Your task to perform on an android device: Go to battery settings Image 0: 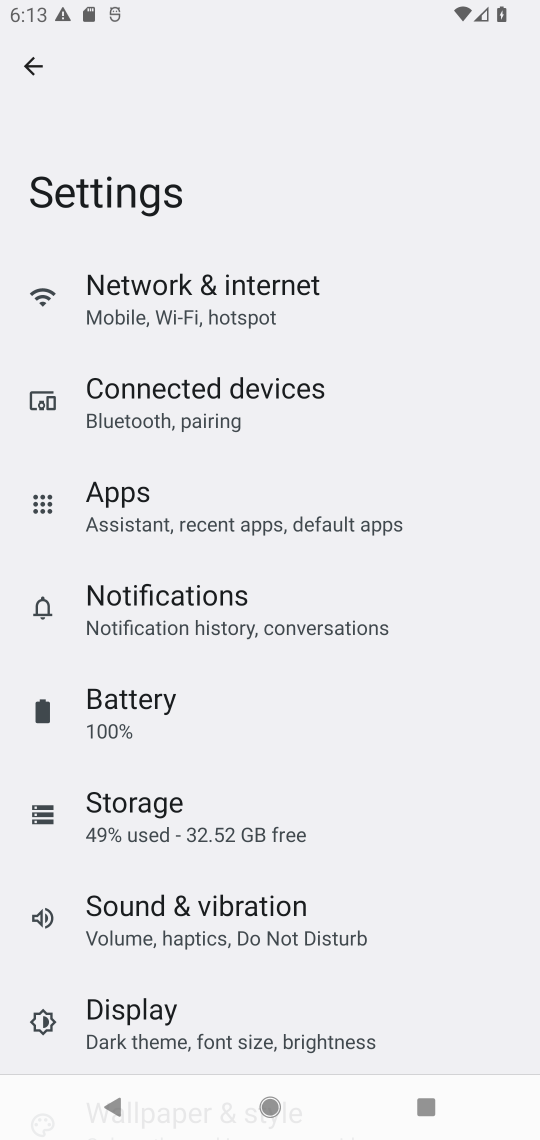
Step 0: click (125, 711)
Your task to perform on an android device: Go to battery settings Image 1: 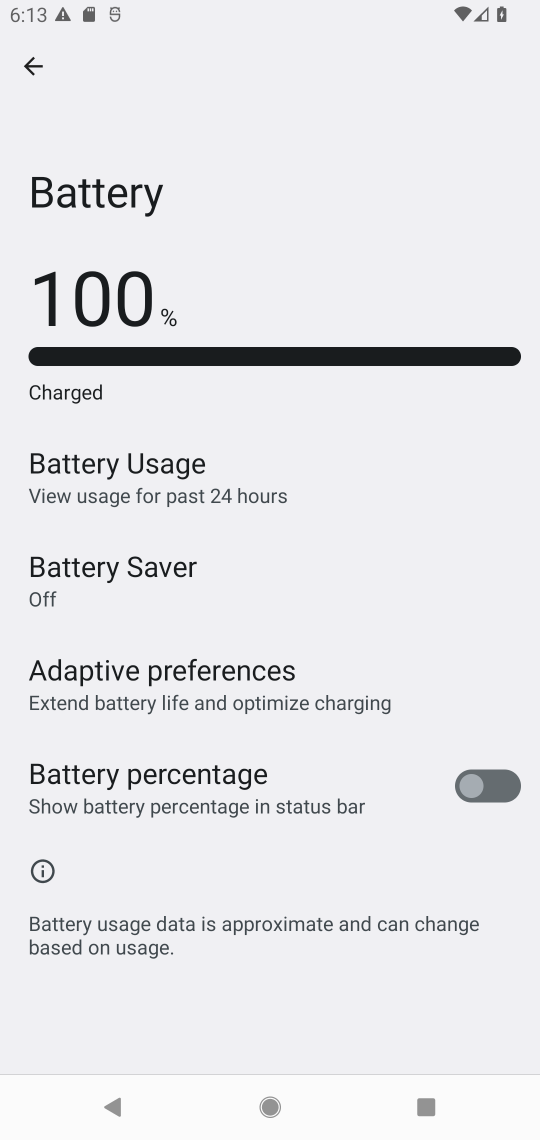
Step 1: task complete